Your task to perform on an android device: move a message to another label in the gmail app Image 0: 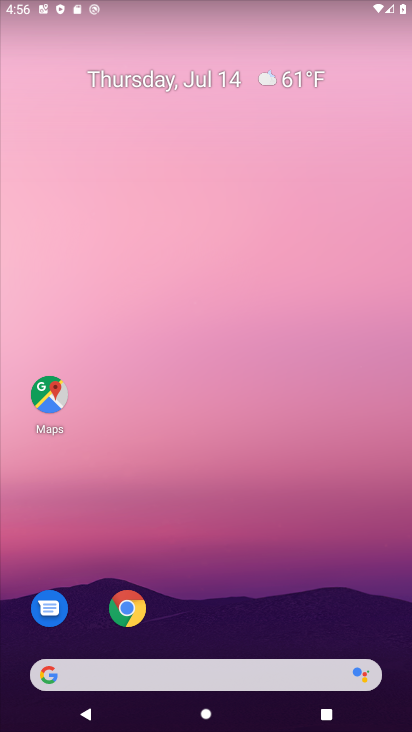
Step 0: drag from (226, 93) to (224, 48)
Your task to perform on an android device: move a message to another label in the gmail app Image 1: 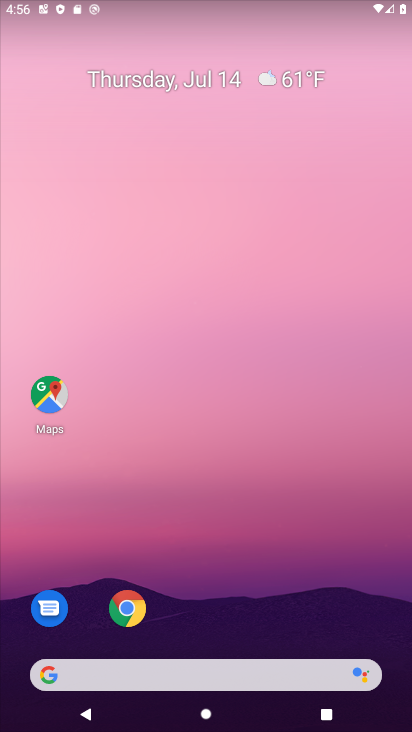
Step 1: drag from (234, 302) to (221, 23)
Your task to perform on an android device: move a message to another label in the gmail app Image 2: 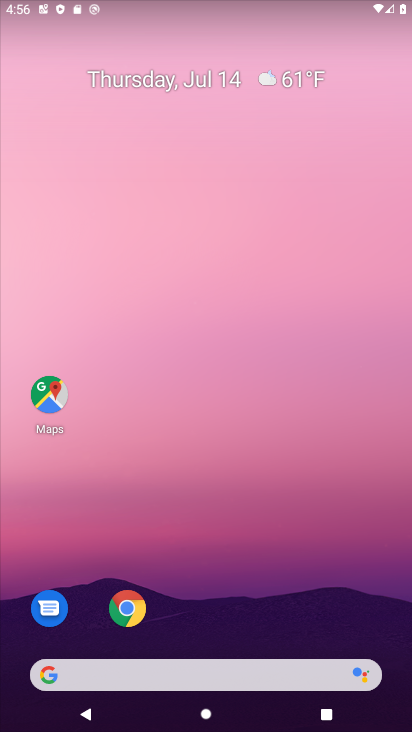
Step 2: drag from (251, 510) to (284, 58)
Your task to perform on an android device: move a message to another label in the gmail app Image 3: 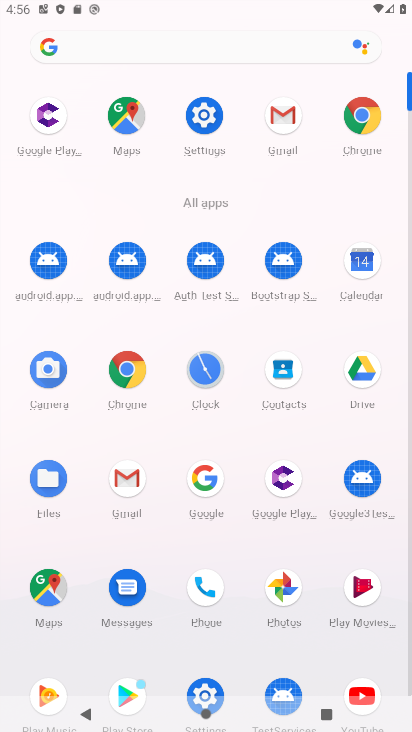
Step 3: click (297, 126)
Your task to perform on an android device: move a message to another label in the gmail app Image 4: 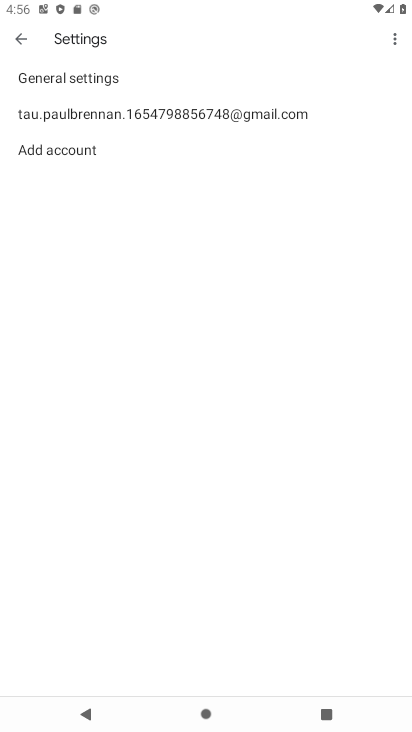
Step 4: click (18, 37)
Your task to perform on an android device: move a message to another label in the gmail app Image 5: 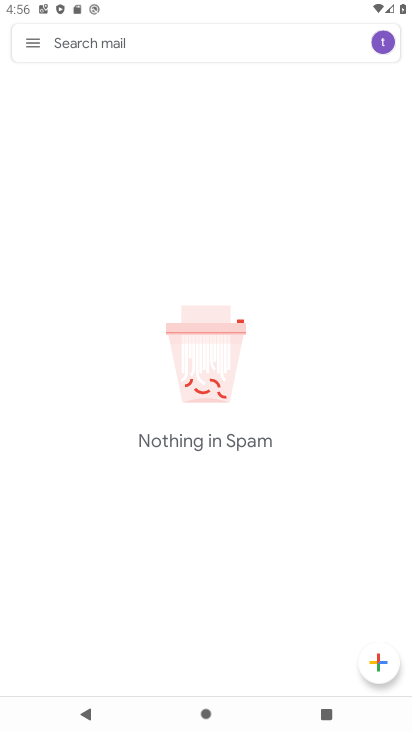
Step 5: click (21, 36)
Your task to perform on an android device: move a message to another label in the gmail app Image 6: 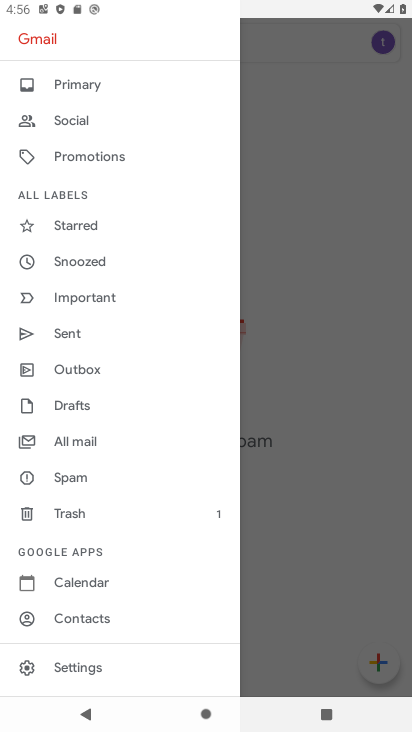
Step 6: drag from (100, 187) to (97, 516)
Your task to perform on an android device: move a message to another label in the gmail app Image 7: 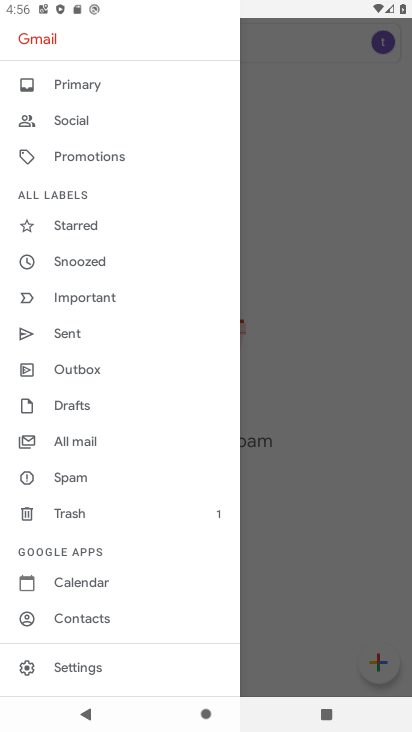
Step 7: drag from (59, 176) to (83, 493)
Your task to perform on an android device: move a message to another label in the gmail app Image 8: 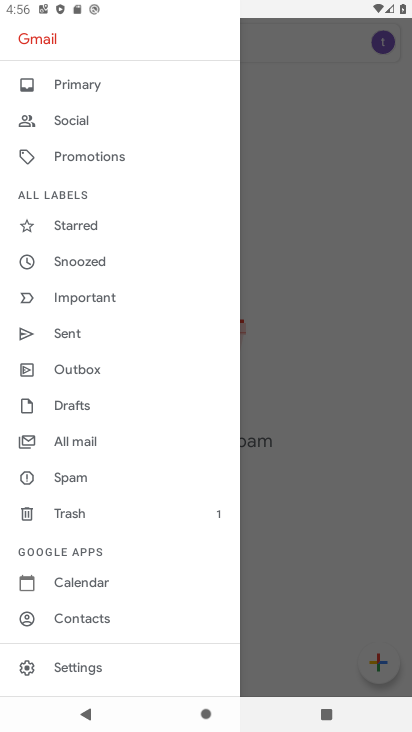
Step 8: drag from (90, 168) to (51, 547)
Your task to perform on an android device: move a message to another label in the gmail app Image 9: 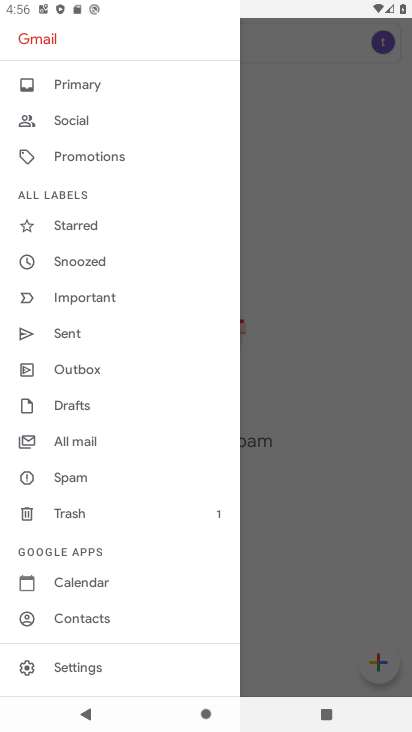
Step 9: drag from (82, 97) to (89, 541)
Your task to perform on an android device: move a message to another label in the gmail app Image 10: 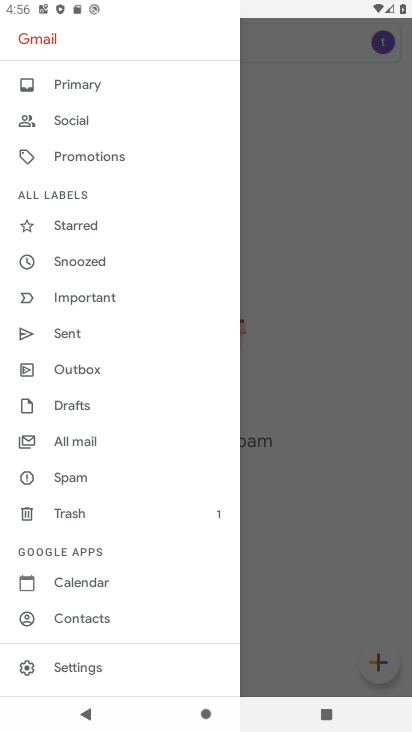
Step 10: click (84, 441)
Your task to perform on an android device: move a message to another label in the gmail app Image 11: 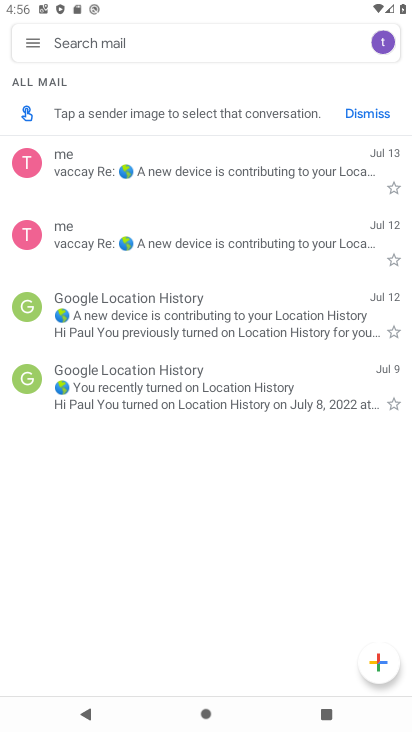
Step 11: click (335, 167)
Your task to perform on an android device: move a message to another label in the gmail app Image 12: 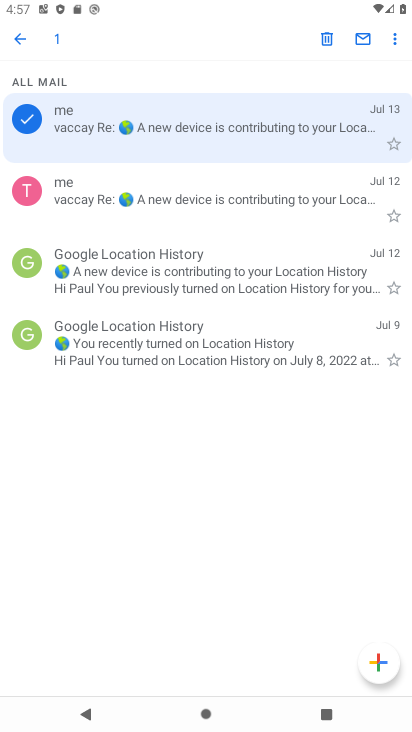
Step 12: click (396, 33)
Your task to perform on an android device: move a message to another label in the gmail app Image 13: 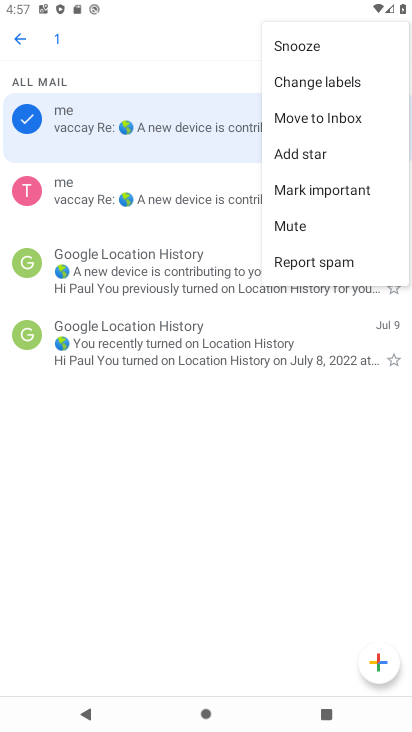
Step 13: click (345, 74)
Your task to perform on an android device: move a message to another label in the gmail app Image 14: 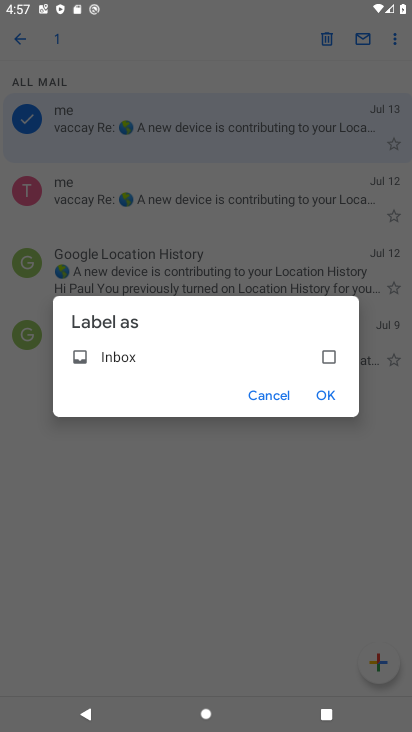
Step 14: click (325, 351)
Your task to perform on an android device: move a message to another label in the gmail app Image 15: 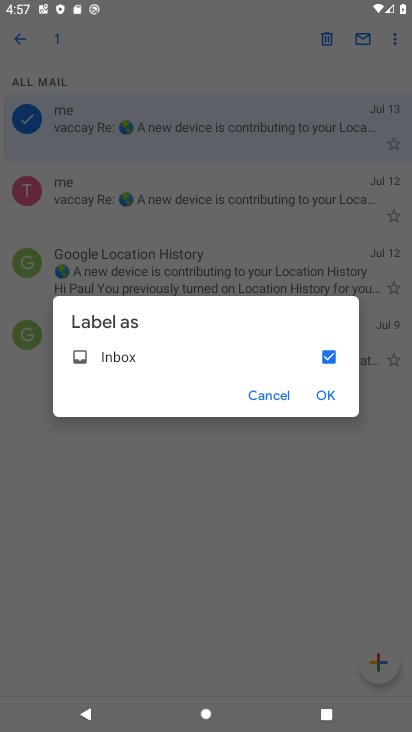
Step 15: click (334, 396)
Your task to perform on an android device: move a message to another label in the gmail app Image 16: 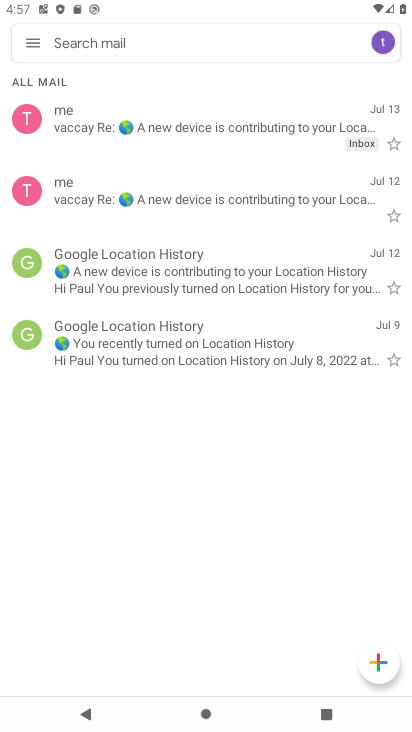
Step 16: task complete